Your task to perform on an android device: open sync settings in chrome Image 0: 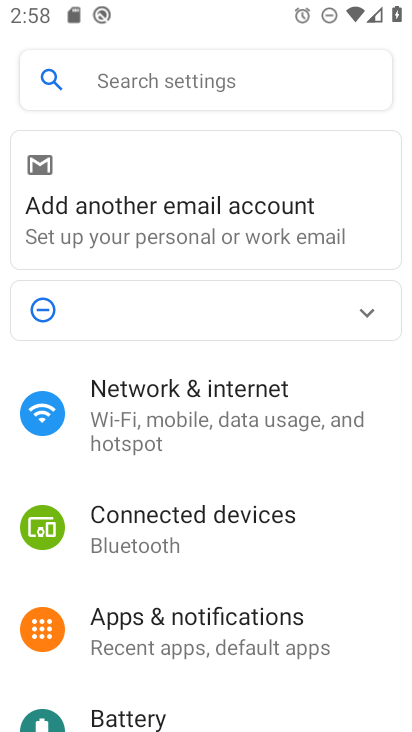
Step 0: drag from (212, 649) to (281, 198)
Your task to perform on an android device: open sync settings in chrome Image 1: 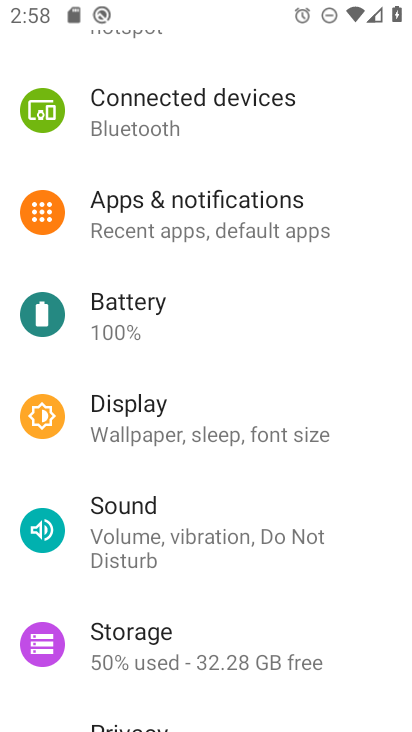
Step 1: press home button
Your task to perform on an android device: open sync settings in chrome Image 2: 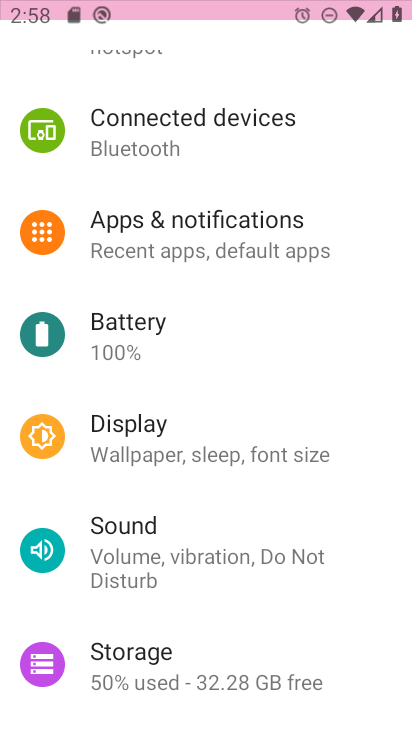
Step 2: drag from (175, 605) to (280, 76)
Your task to perform on an android device: open sync settings in chrome Image 3: 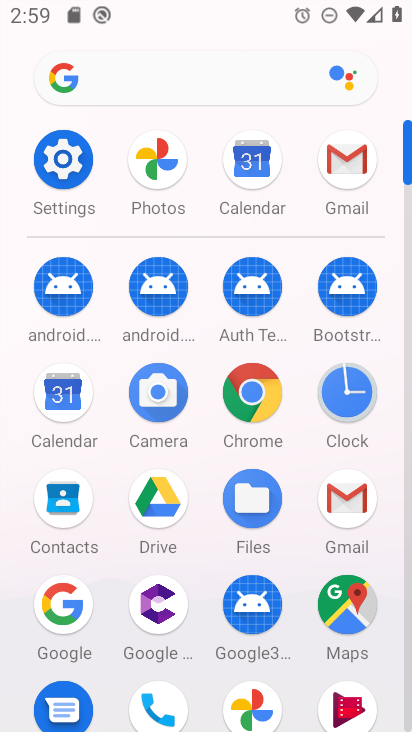
Step 3: click (251, 397)
Your task to perform on an android device: open sync settings in chrome Image 4: 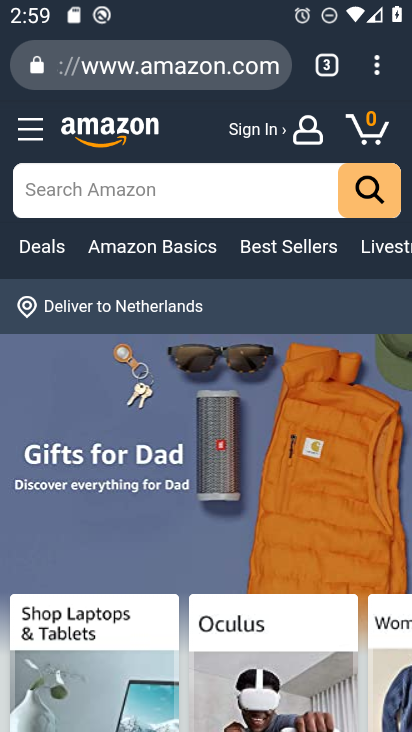
Step 4: drag from (206, 471) to (274, 117)
Your task to perform on an android device: open sync settings in chrome Image 5: 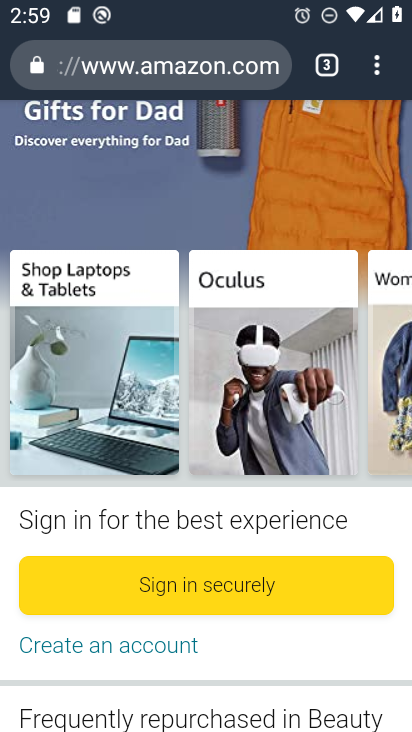
Step 5: drag from (376, 60) to (163, 652)
Your task to perform on an android device: open sync settings in chrome Image 6: 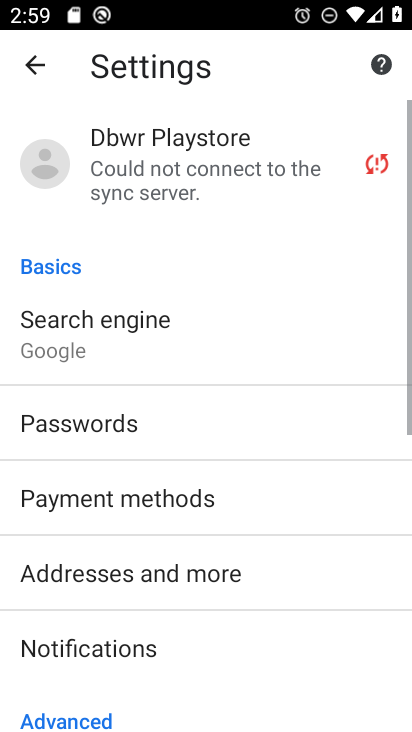
Step 6: drag from (184, 551) to (259, 226)
Your task to perform on an android device: open sync settings in chrome Image 7: 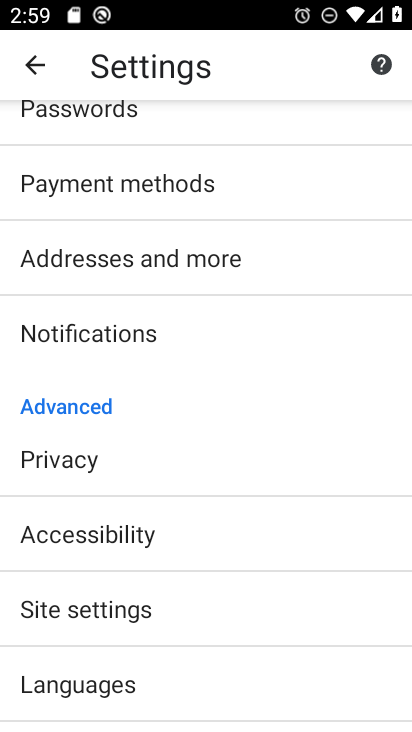
Step 7: click (146, 615)
Your task to perform on an android device: open sync settings in chrome Image 8: 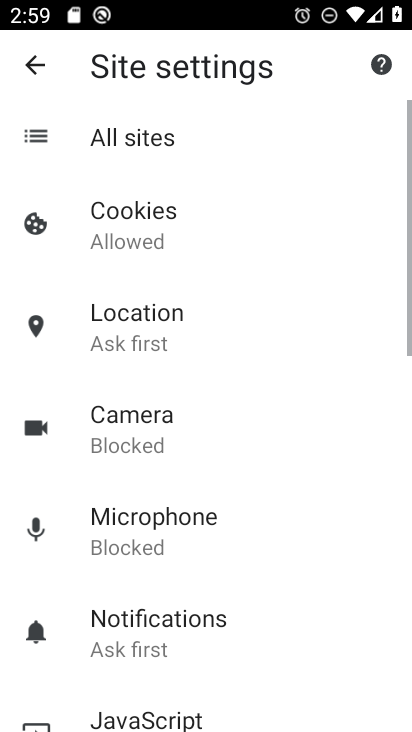
Step 8: drag from (190, 464) to (254, 113)
Your task to perform on an android device: open sync settings in chrome Image 9: 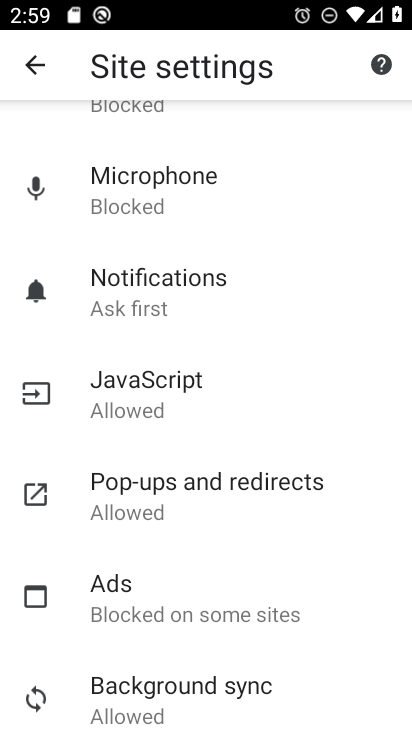
Step 9: click (160, 693)
Your task to perform on an android device: open sync settings in chrome Image 10: 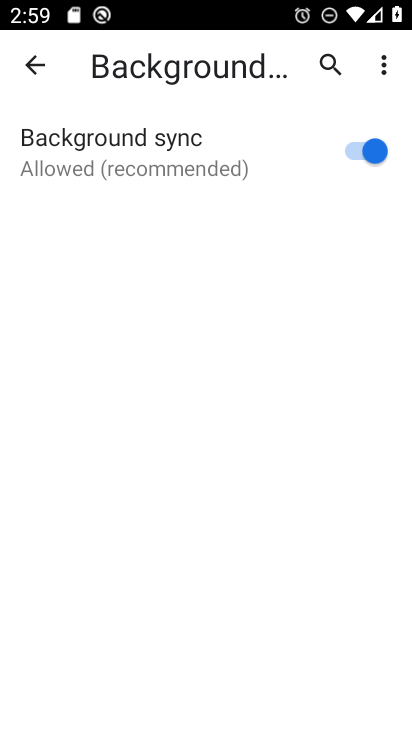
Step 10: task complete